Your task to perform on an android device: Show me popular videos on Youtube Image 0: 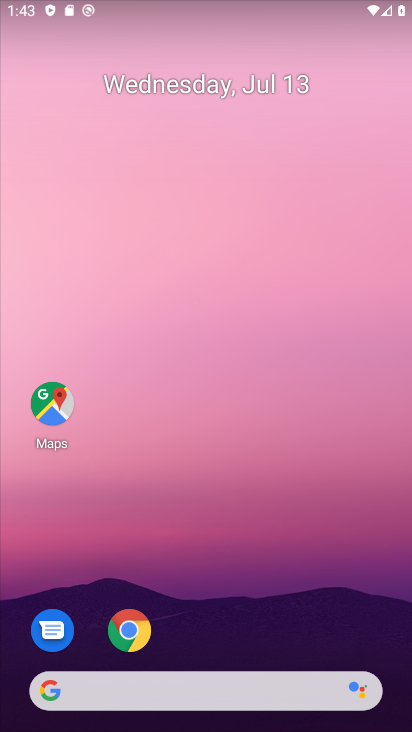
Step 0: click (183, 201)
Your task to perform on an android device: Show me popular videos on Youtube Image 1: 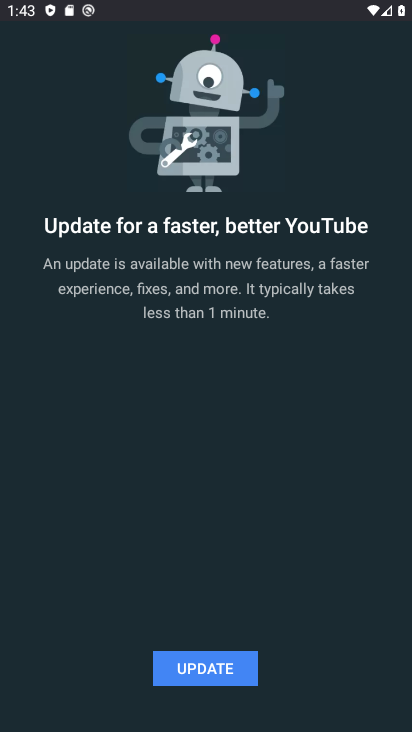
Step 1: press home button
Your task to perform on an android device: Show me popular videos on Youtube Image 2: 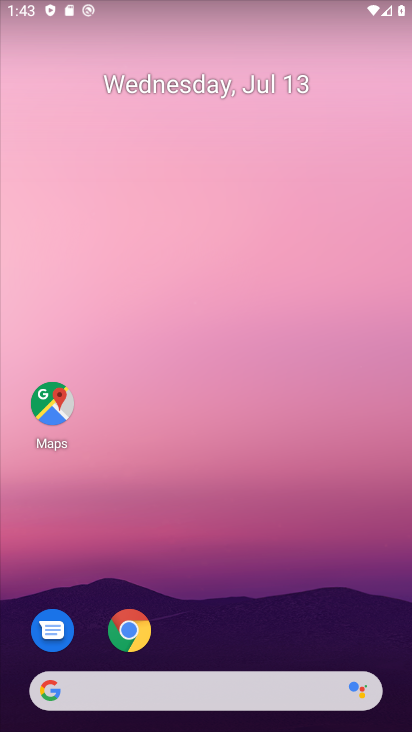
Step 2: drag from (195, 640) to (196, 197)
Your task to perform on an android device: Show me popular videos on Youtube Image 3: 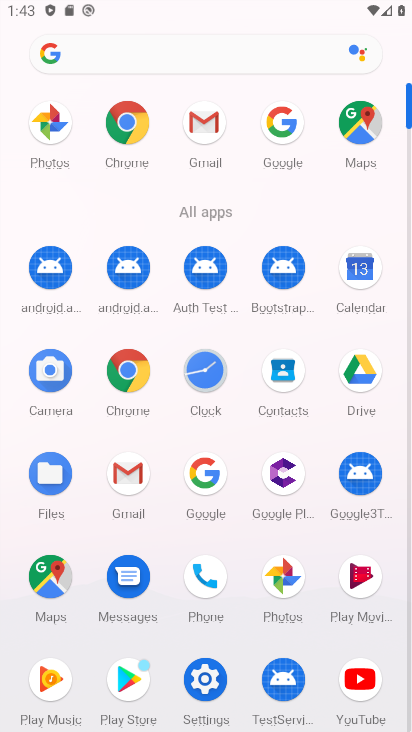
Step 3: click (343, 673)
Your task to perform on an android device: Show me popular videos on Youtube Image 4: 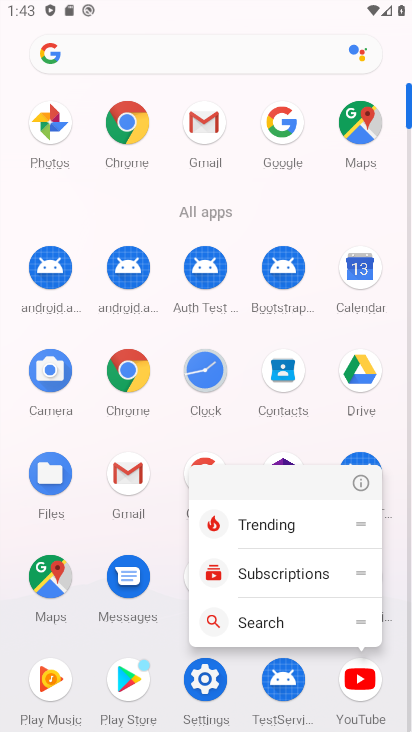
Step 4: click (362, 682)
Your task to perform on an android device: Show me popular videos on Youtube Image 5: 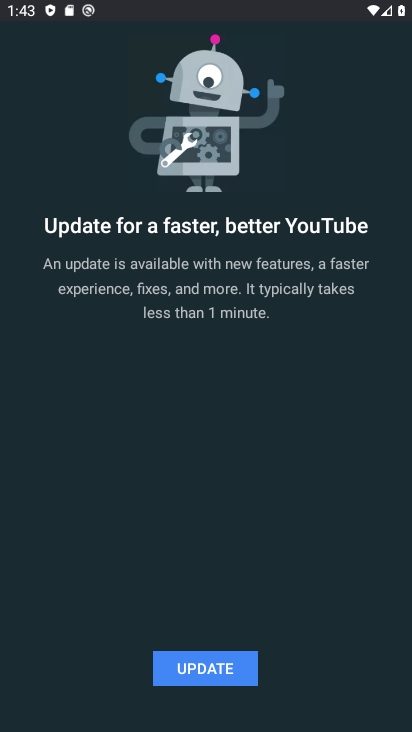
Step 5: click (195, 675)
Your task to perform on an android device: Show me popular videos on Youtube Image 6: 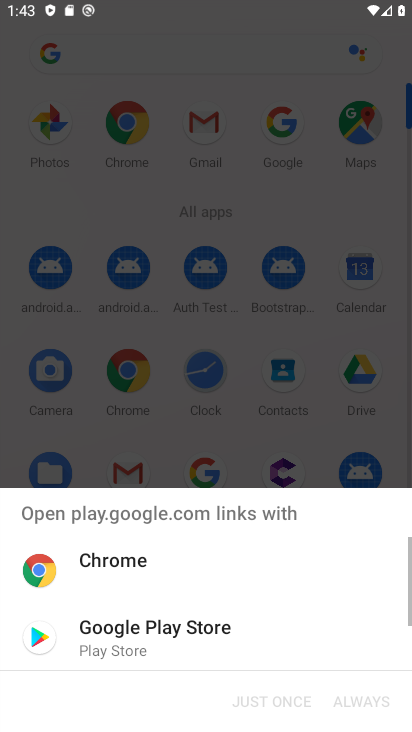
Step 6: click (138, 628)
Your task to perform on an android device: Show me popular videos on Youtube Image 7: 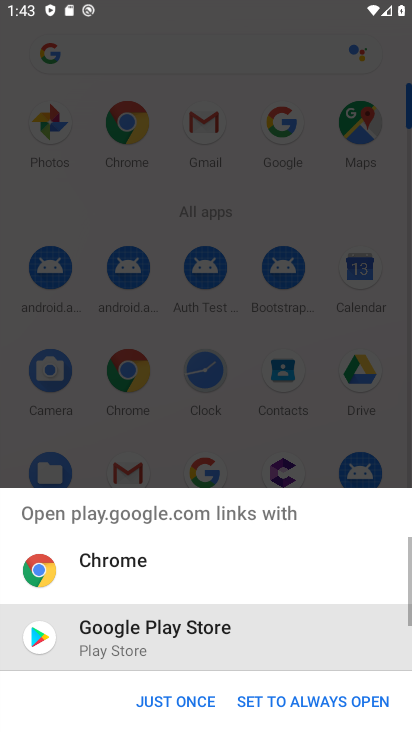
Step 7: click (181, 699)
Your task to perform on an android device: Show me popular videos on Youtube Image 8: 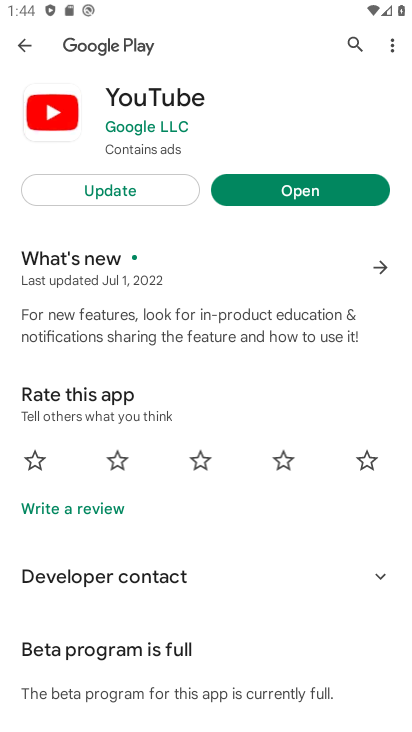
Step 8: click (131, 203)
Your task to perform on an android device: Show me popular videos on Youtube Image 9: 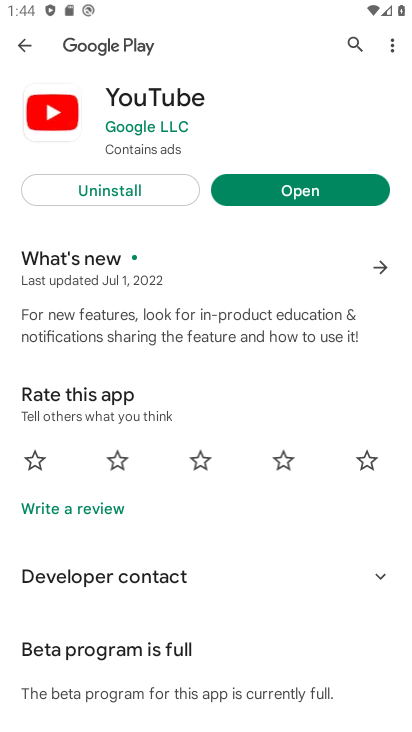
Step 9: click (262, 202)
Your task to perform on an android device: Show me popular videos on Youtube Image 10: 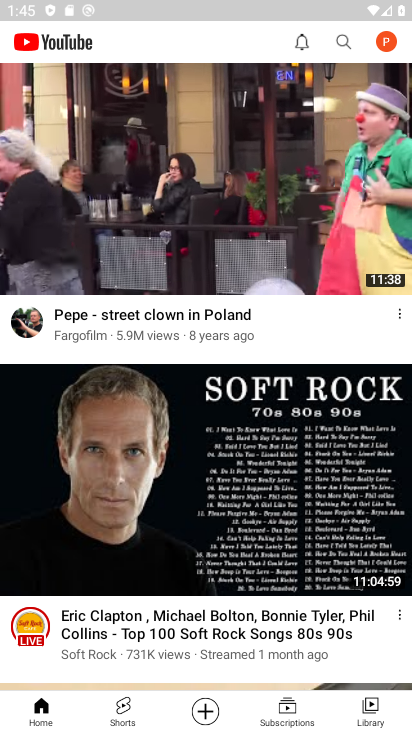
Step 10: click (336, 33)
Your task to perform on an android device: Show me popular videos on Youtube Image 11: 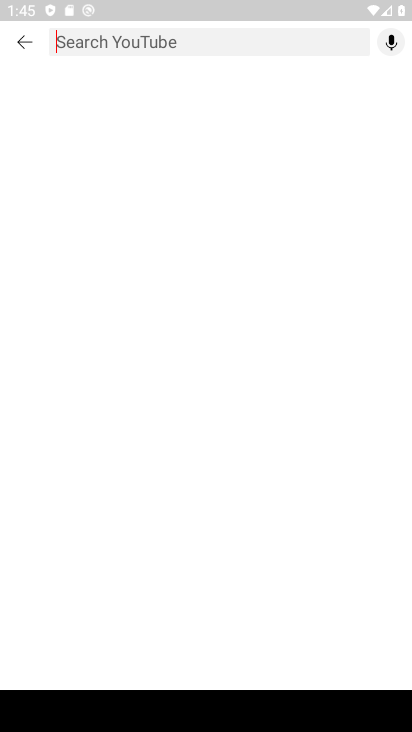
Step 11: click (182, 47)
Your task to perform on an android device: Show me popular videos on Youtube Image 12: 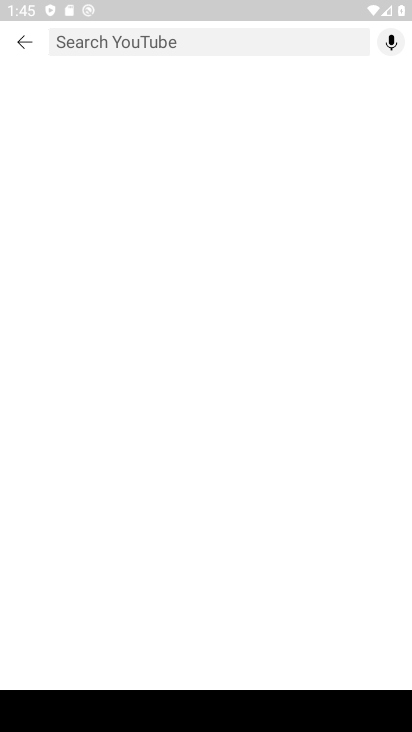
Step 12: type "popular video"
Your task to perform on an android device: Show me popular videos on Youtube Image 13: 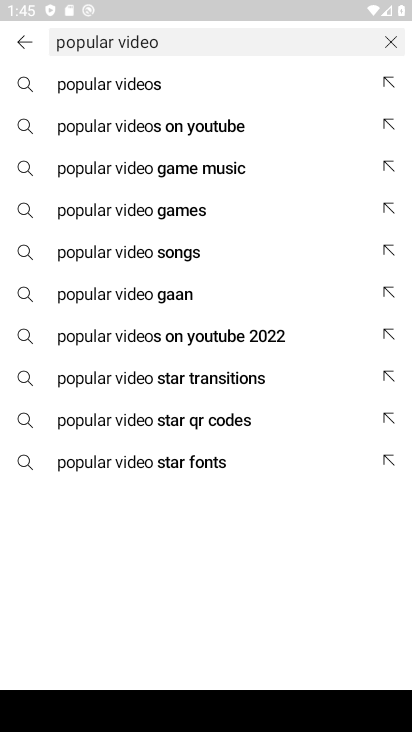
Step 13: click (131, 80)
Your task to perform on an android device: Show me popular videos on Youtube Image 14: 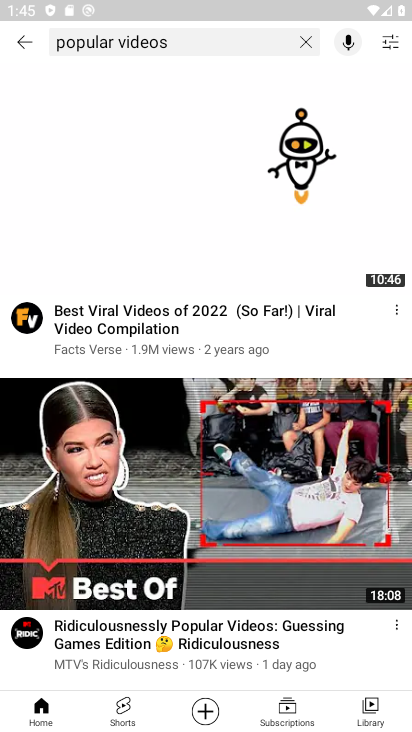
Step 14: task complete